Your task to perform on an android device: Go to Yahoo.com Image 0: 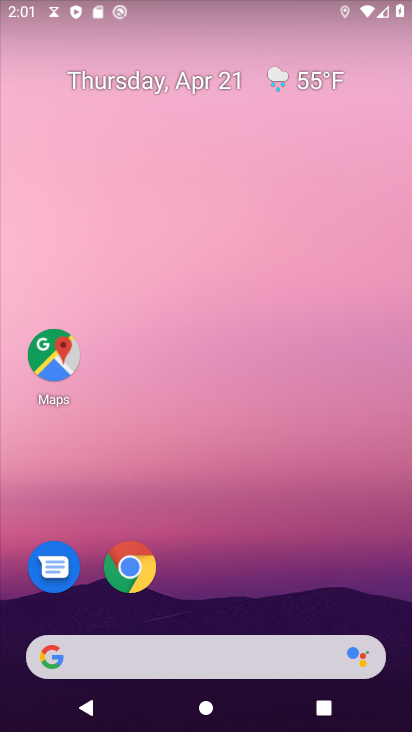
Step 0: drag from (157, 653) to (359, 59)
Your task to perform on an android device: Go to Yahoo.com Image 1: 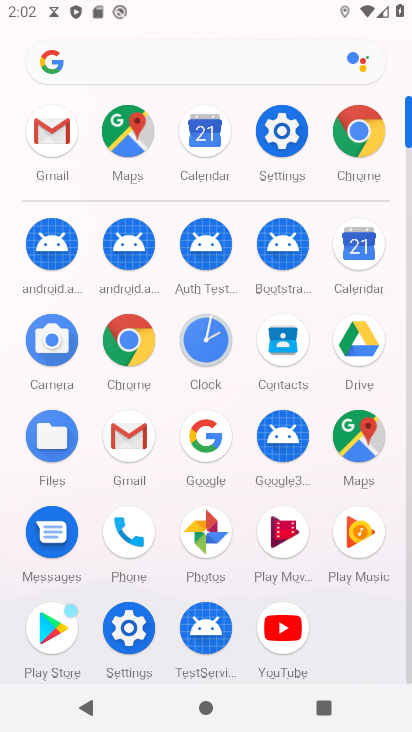
Step 1: click (362, 145)
Your task to perform on an android device: Go to Yahoo.com Image 2: 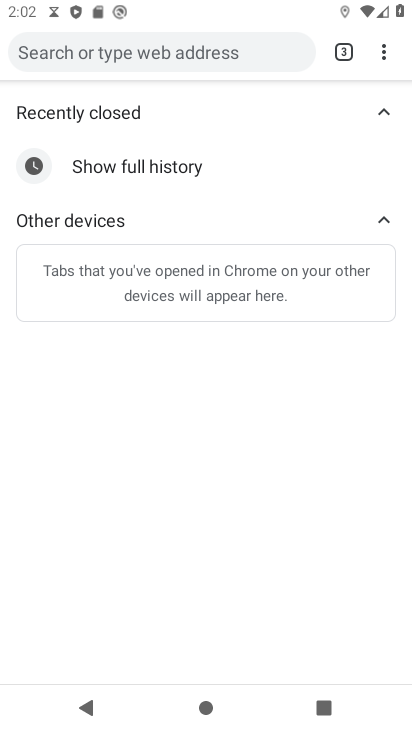
Step 2: click (375, 60)
Your task to perform on an android device: Go to Yahoo.com Image 3: 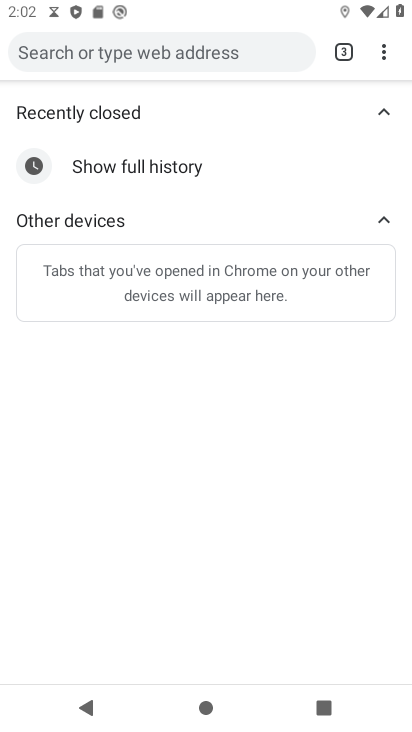
Step 3: click (375, 60)
Your task to perform on an android device: Go to Yahoo.com Image 4: 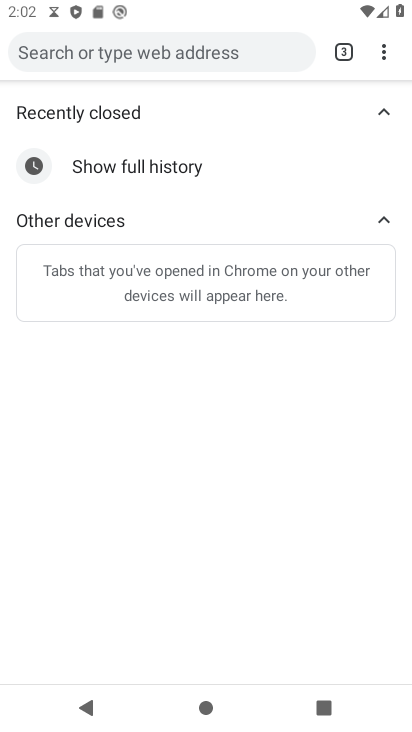
Step 4: click (381, 59)
Your task to perform on an android device: Go to Yahoo.com Image 5: 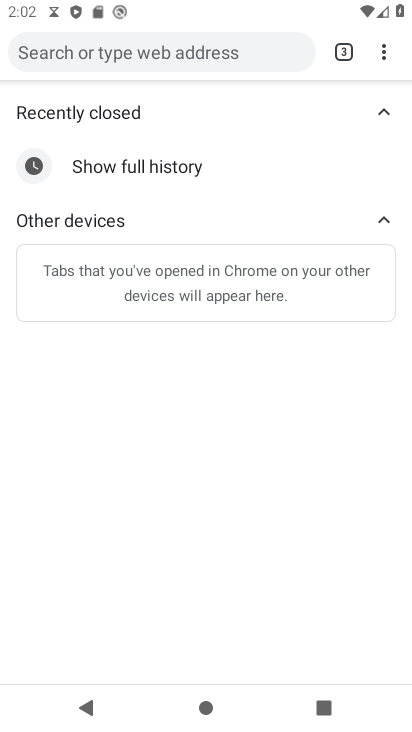
Step 5: click (371, 60)
Your task to perform on an android device: Go to Yahoo.com Image 6: 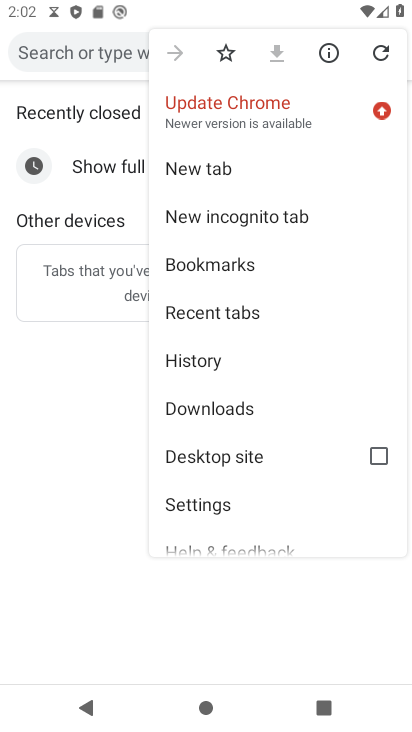
Step 6: click (194, 177)
Your task to perform on an android device: Go to Yahoo.com Image 7: 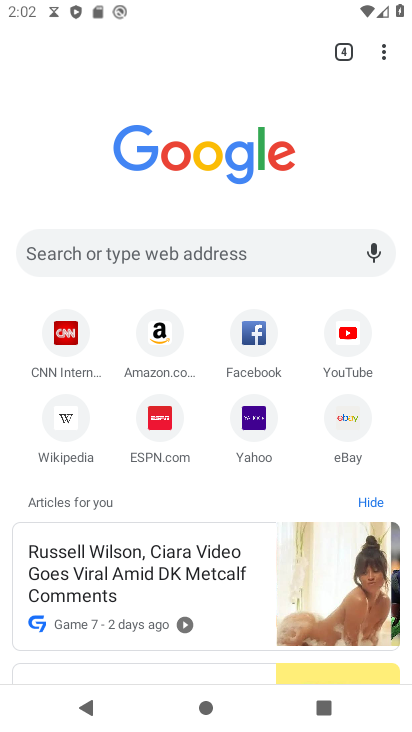
Step 7: click (255, 417)
Your task to perform on an android device: Go to Yahoo.com Image 8: 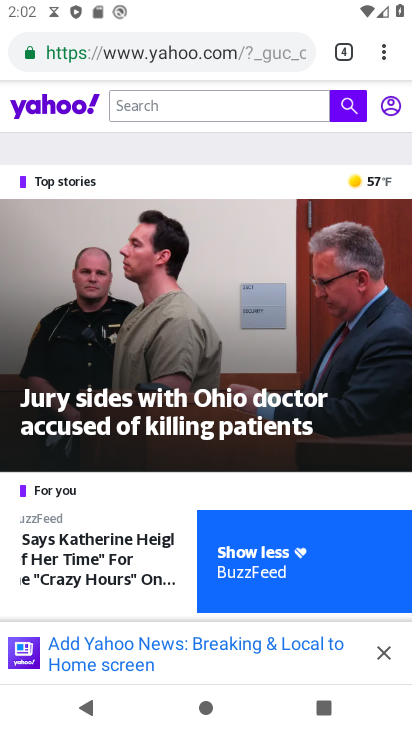
Step 8: task complete